Your task to perform on an android device: toggle notification dots Image 0: 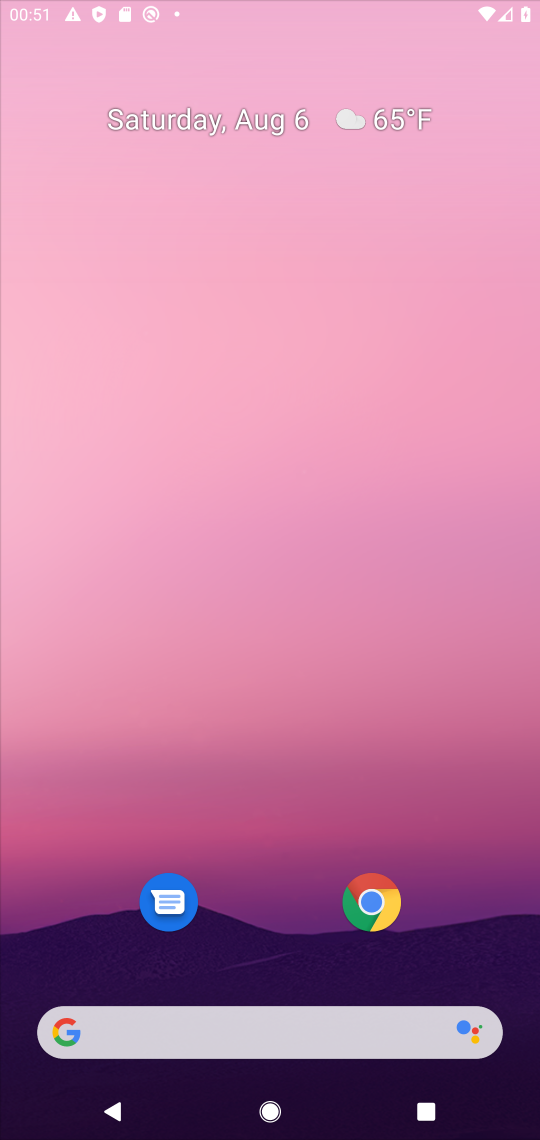
Step 0: press home button
Your task to perform on an android device: toggle notification dots Image 1: 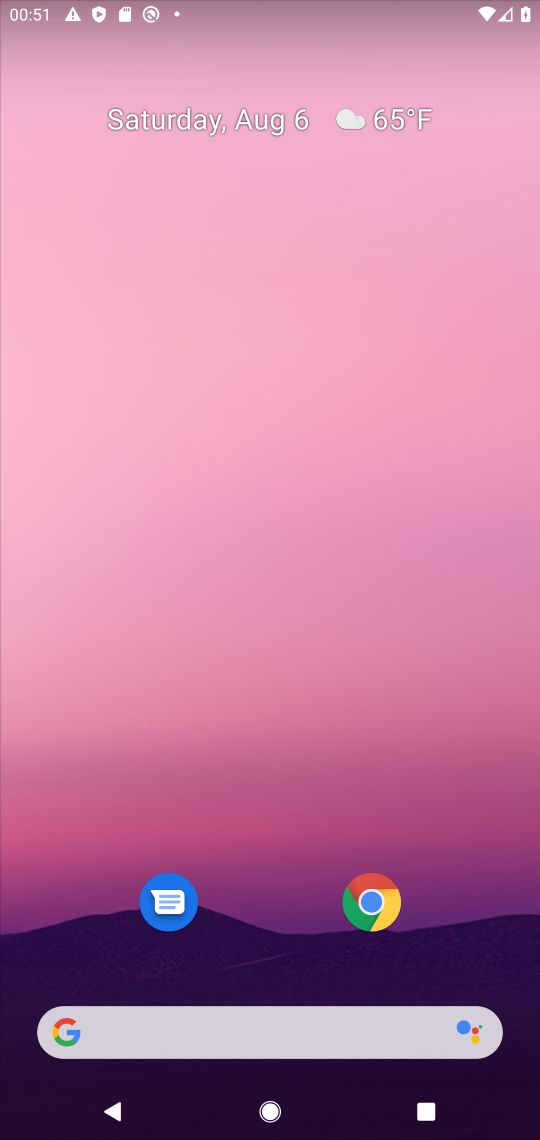
Step 1: drag from (275, 902) to (193, 338)
Your task to perform on an android device: toggle notification dots Image 2: 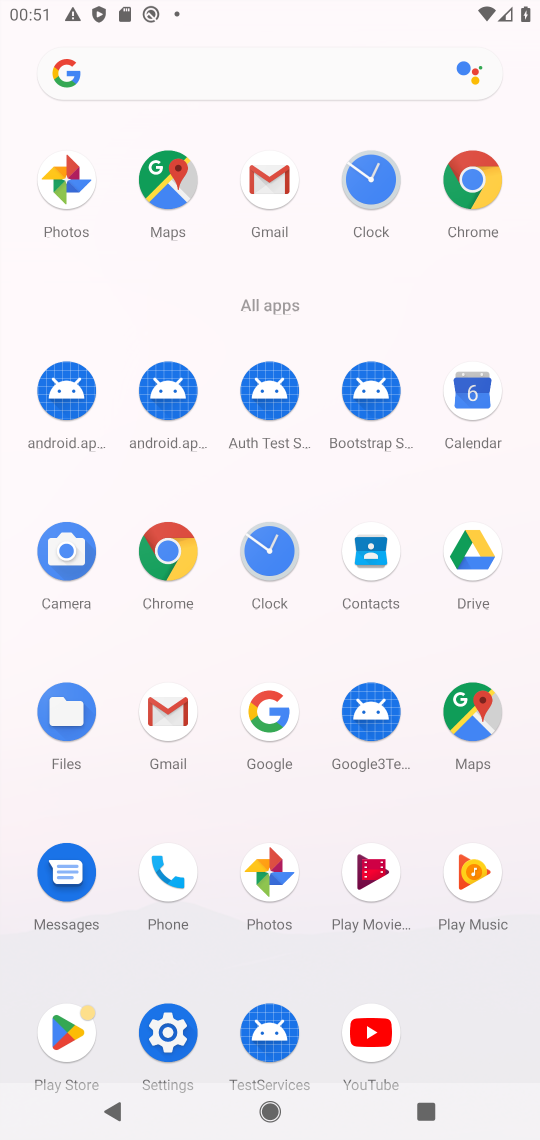
Step 2: click (167, 1025)
Your task to perform on an android device: toggle notification dots Image 3: 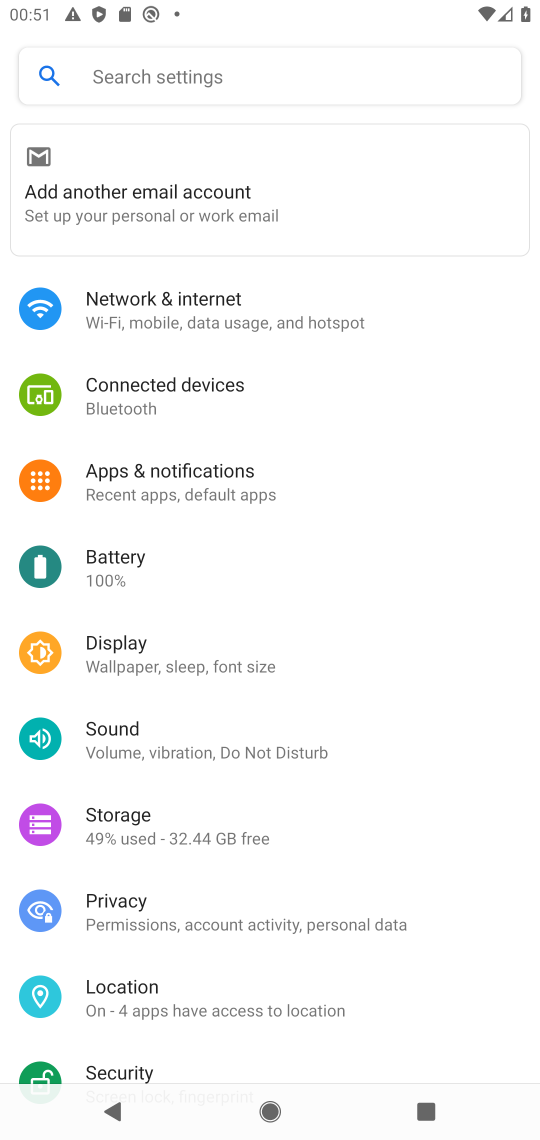
Step 3: click (123, 464)
Your task to perform on an android device: toggle notification dots Image 4: 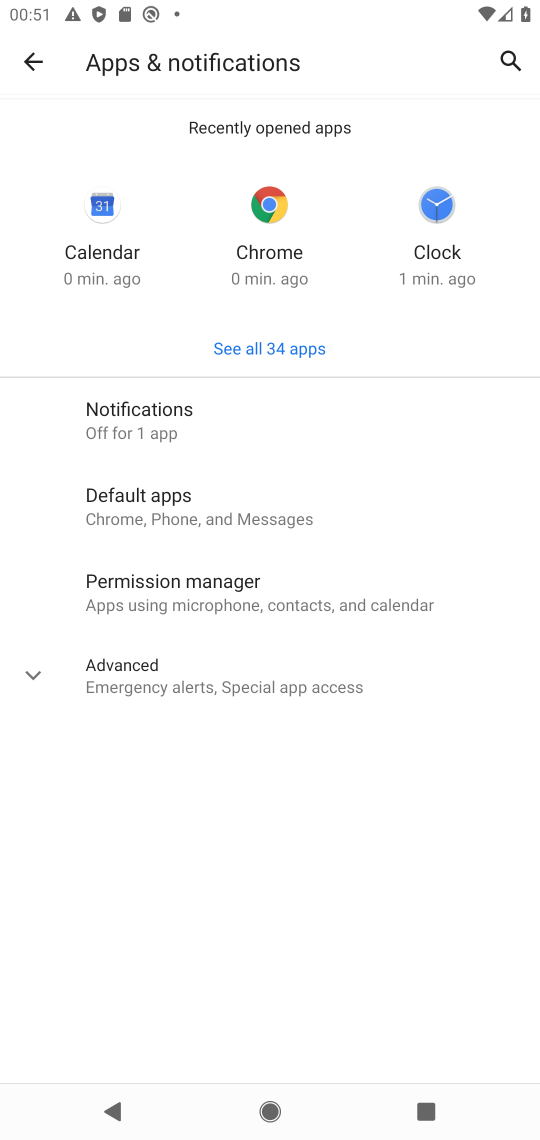
Step 4: click (167, 470)
Your task to perform on an android device: toggle notification dots Image 5: 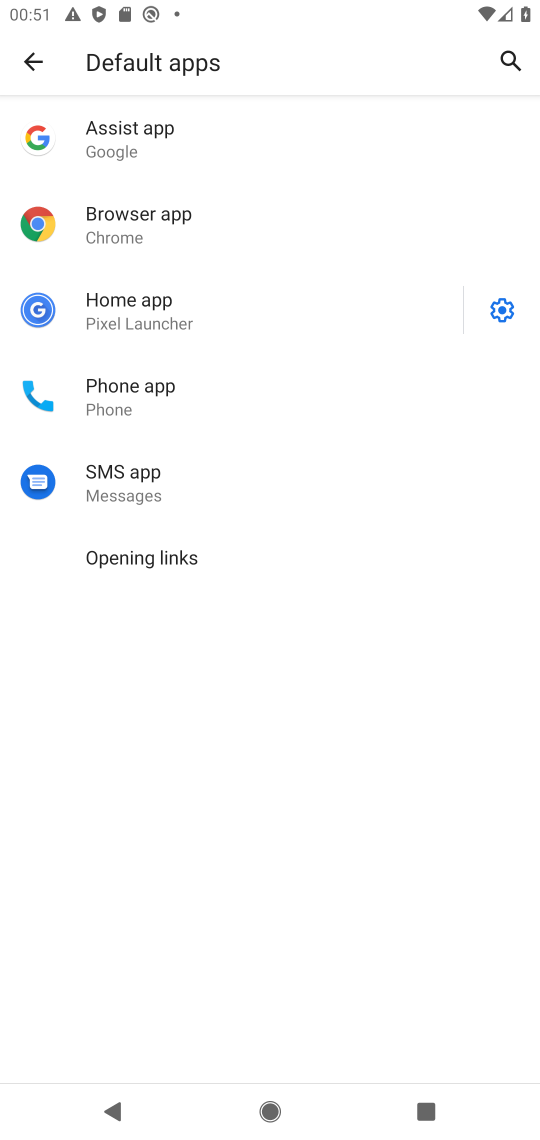
Step 5: click (152, 396)
Your task to perform on an android device: toggle notification dots Image 6: 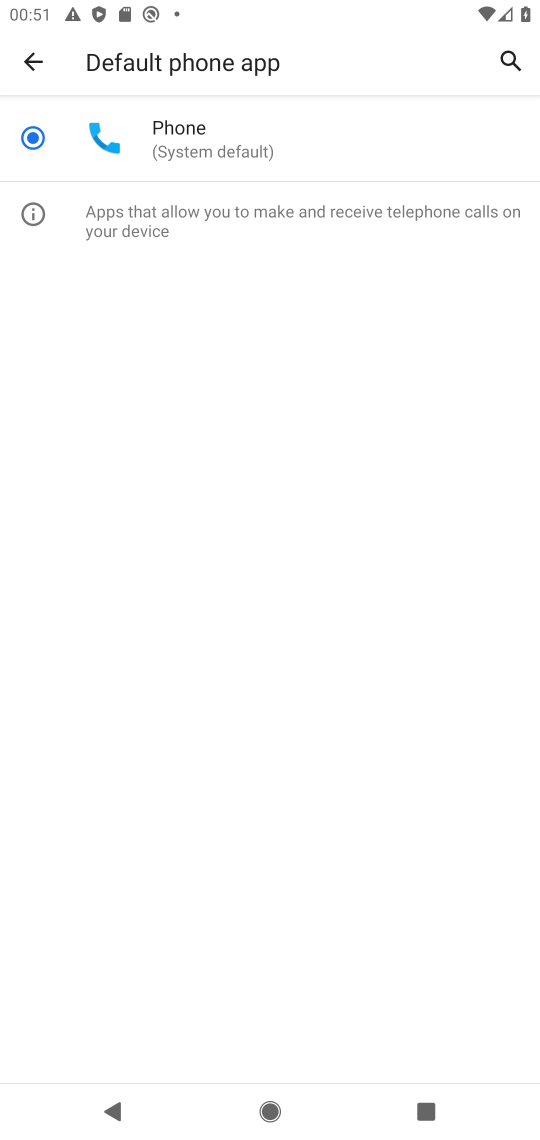
Step 6: click (32, 62)
Your task to perform on an android device: toggle notification dots Image 7: 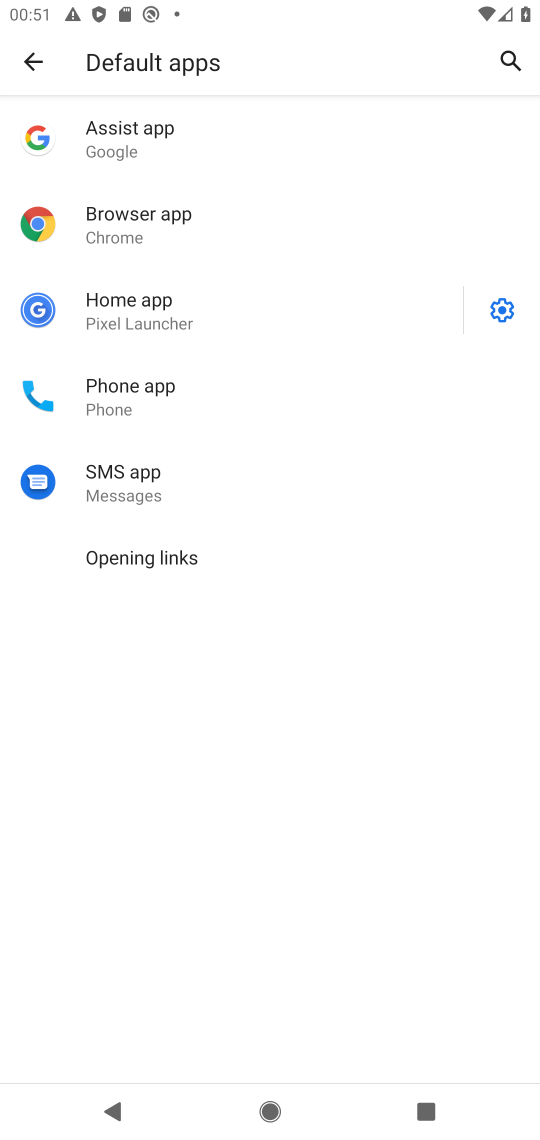
Step 7: click (25, 63)
Your task to perform on an android device: toggle notification dots Image 8: 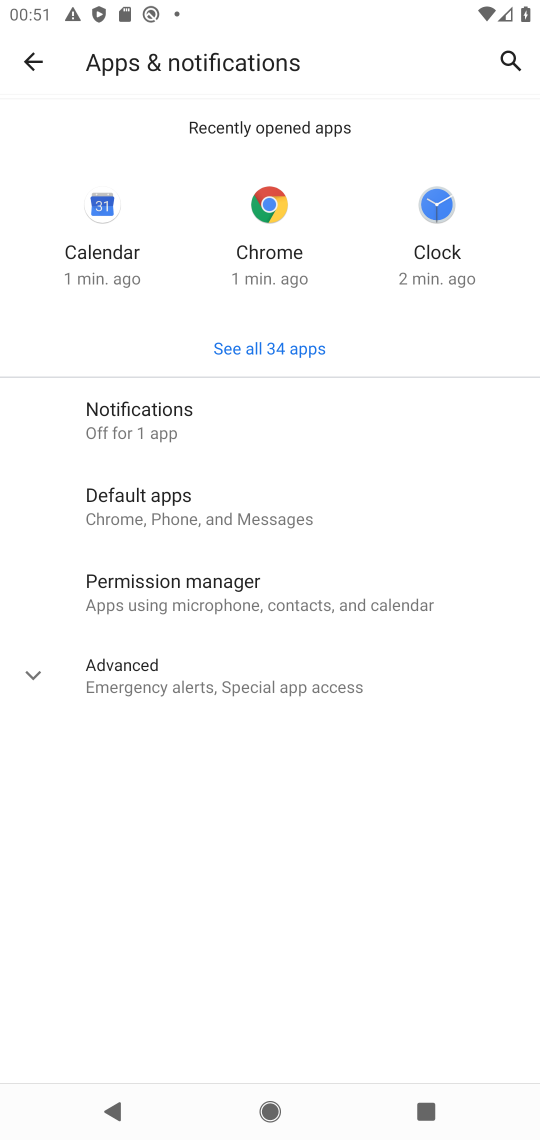
Step 8: click (159, 406)
Your task to perform on an android device: toggle notification dots Image 9: 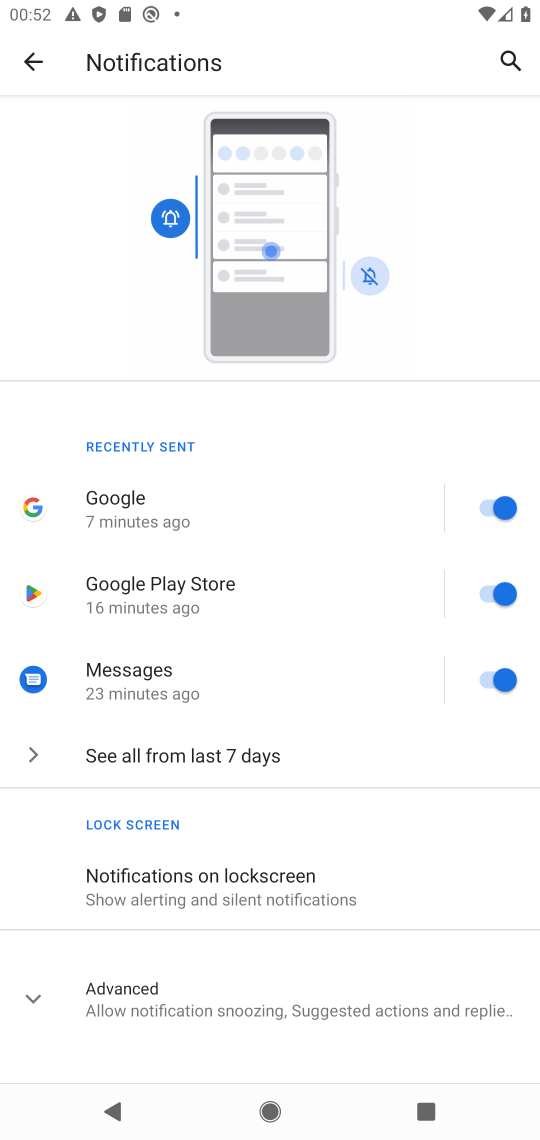
Step 9: drag from (358, 966) to (364, 431)
Your task to perform on an android device: toggle notification dots Image 10: 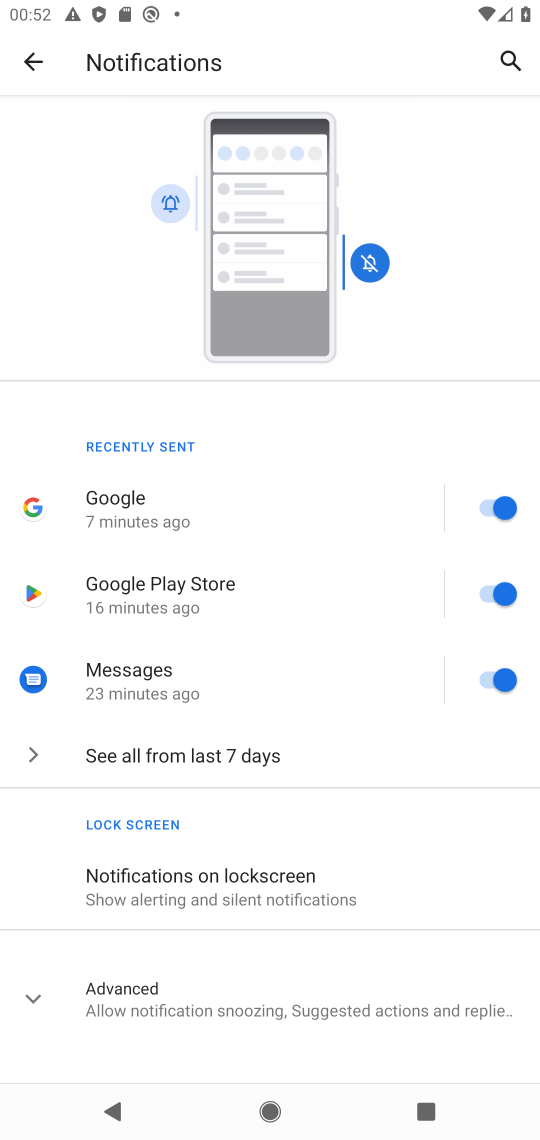
Step 10: click (31, 993)
Your task to perform on an android device: toggle notification dots Image 11: 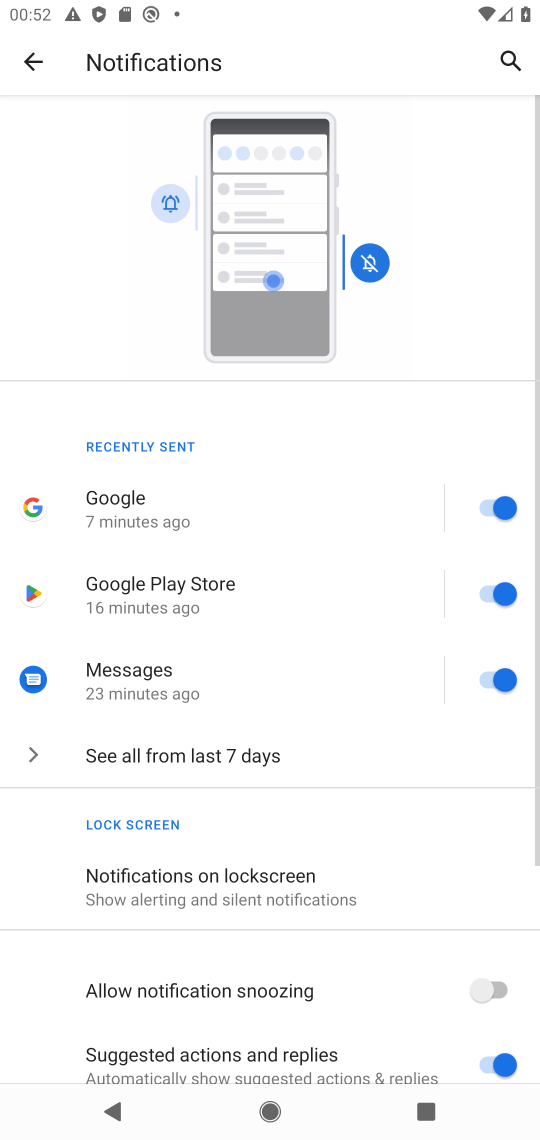
Step 11: drag from (390, 943) to (315, 517)
Your task to perform on an android device: toggle notification dots Image 12: 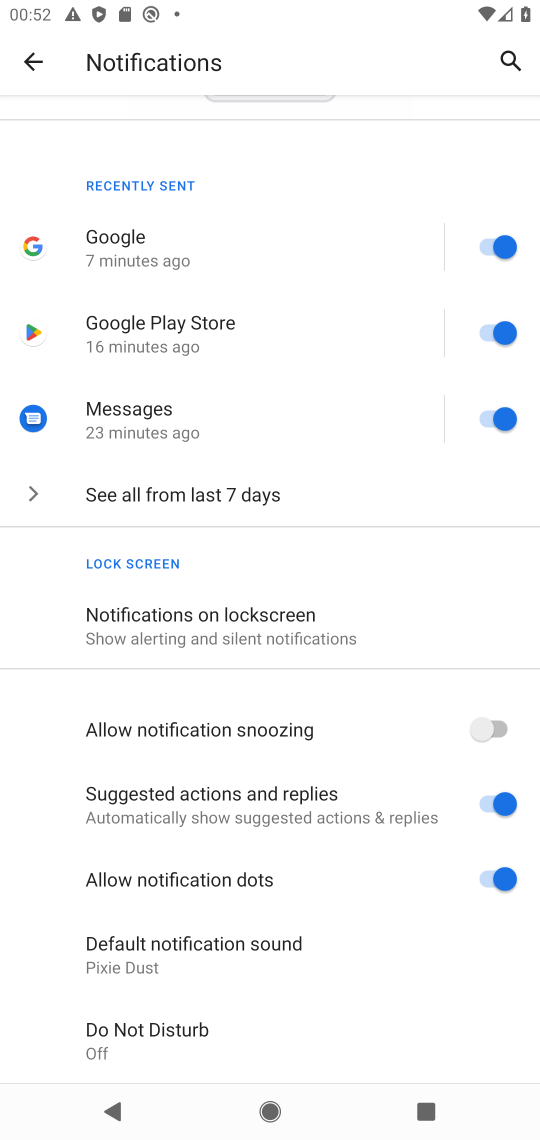
Step 12: click (513, 872)
Your task to perform on an android device: toggle notification dots Image 13: 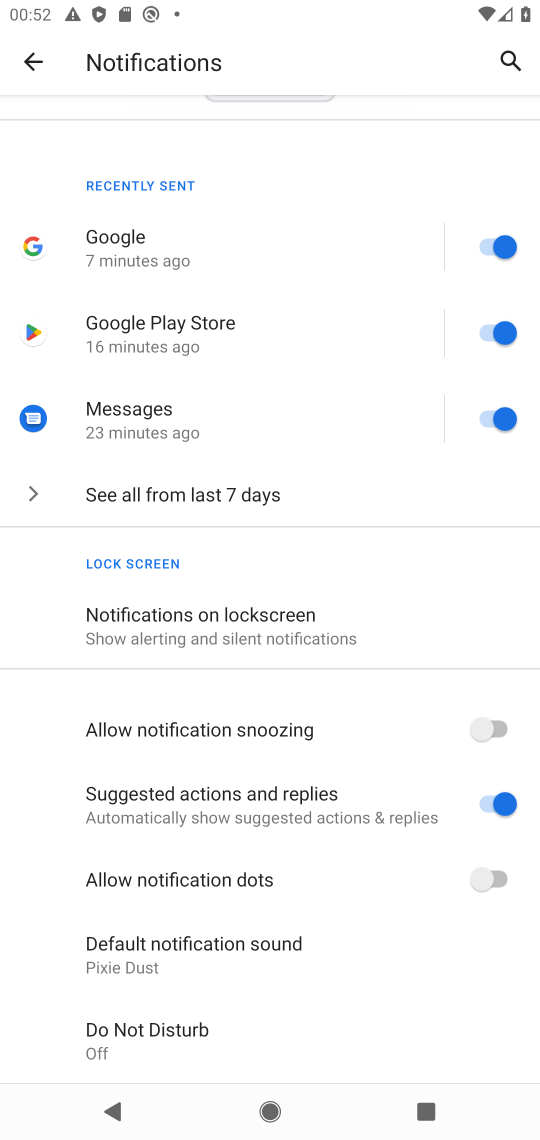
Step 13: task complete